Your task to perform on an android device: toggle translation in the chrome app Image 0: 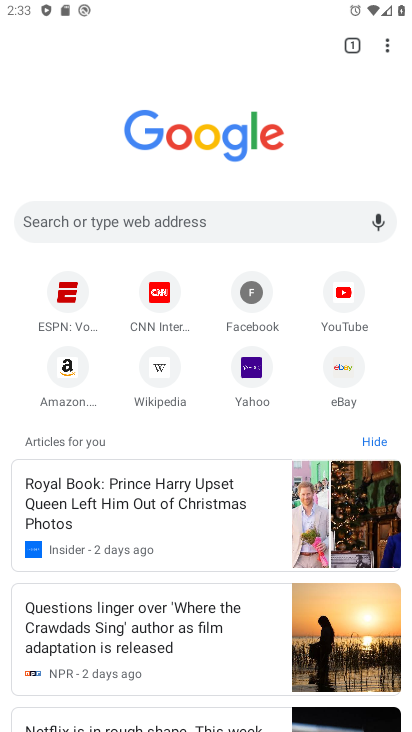
Step 0: click (385, 49)
Your task to perform on an android device: toggle translation in the chrome app Image 1: 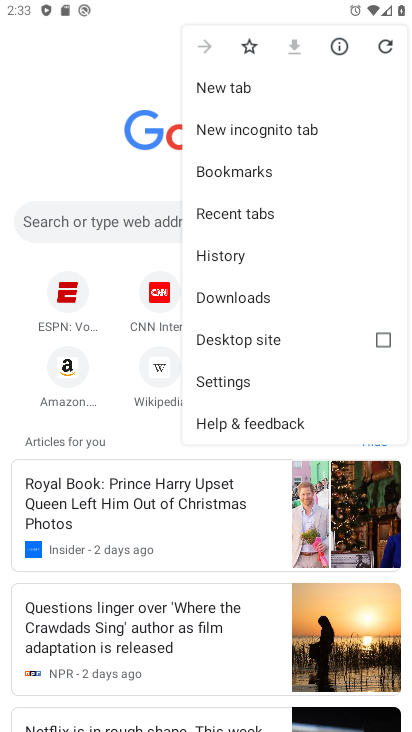
Step 1: click (229, 373)
Your task to perform on an android device: toggle translation in the chrome app Image 2: 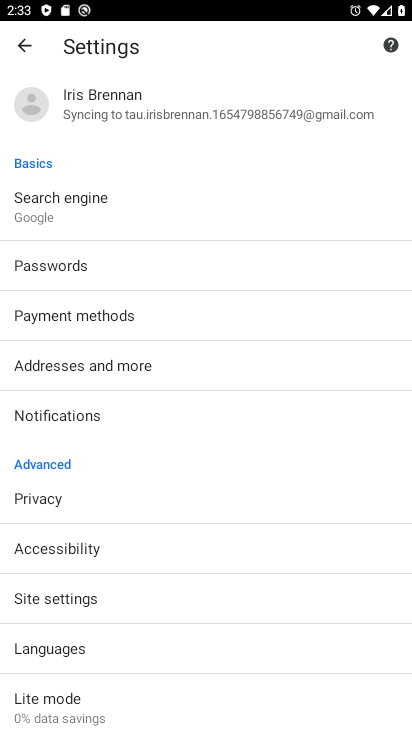
Step 2: click (131, 651)
Your task to perform on an android device: toggle translation in the chrome app Image 3: 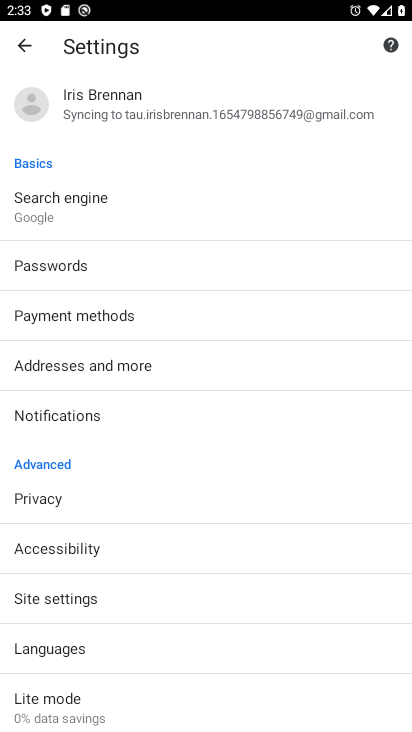
Step 3: click (75, 651)
Your task to perform on an android device: toggle translation in the chrome app Image 4: 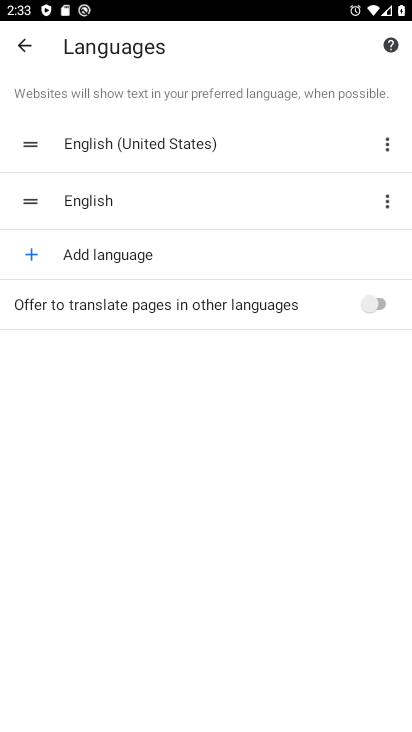
Step 4: click (376, 302)
Your task to perform on an android device: toggle translation in the chrome app Image 5: 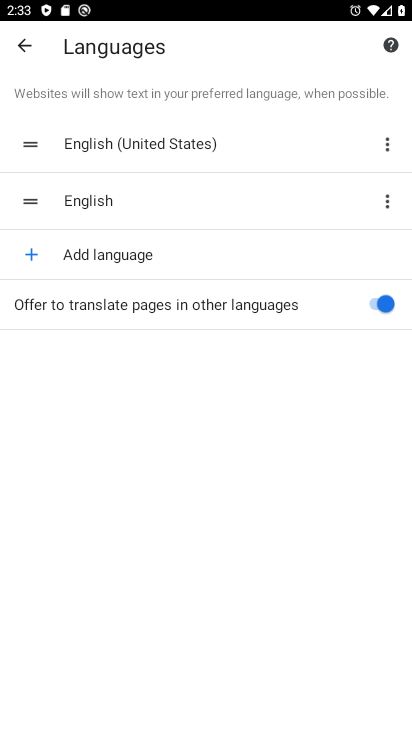
Step 5: task complete